Your task to perform on an android device: Go to Maps Image 0: 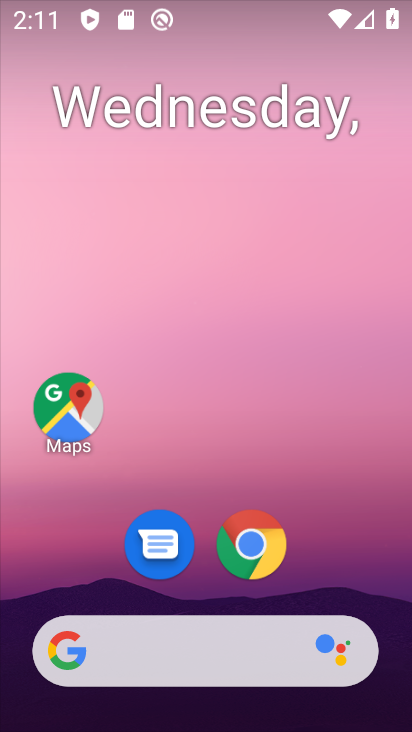
Step 0: drag from (372, 554) to (376, 123)
Your task to perform on an android device: Go to Maps Image 1: 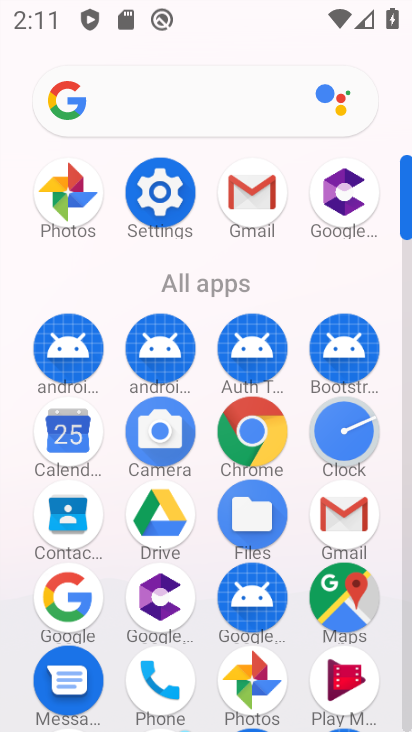
Step 1: click (344, 606)
Your task to perform on an android device: Go to Maps Image 2: 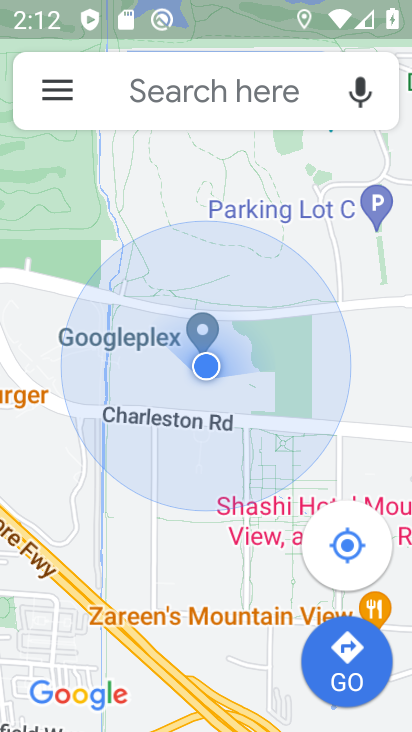
Step 2: task complete